Your task to perform on an android device: Open Google Chrome and open the bookmarks view Image 0: 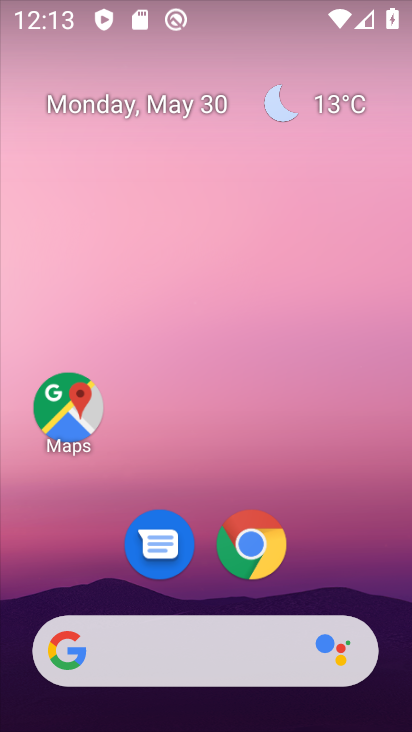
Step 0: click (262, 567)
Your task to perform on an android device: Open Google Chrome and open the bookmarks view Image 1: 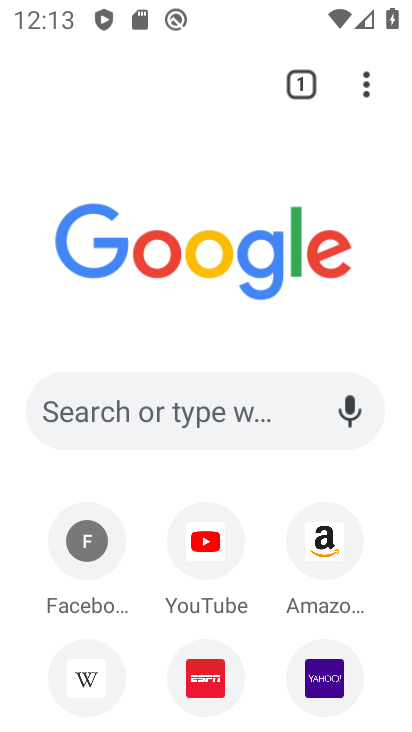
Step 1: click (372, 77)
Your task to perform on an android device: Open Google Chrome and open the bookmarks view Image 2: 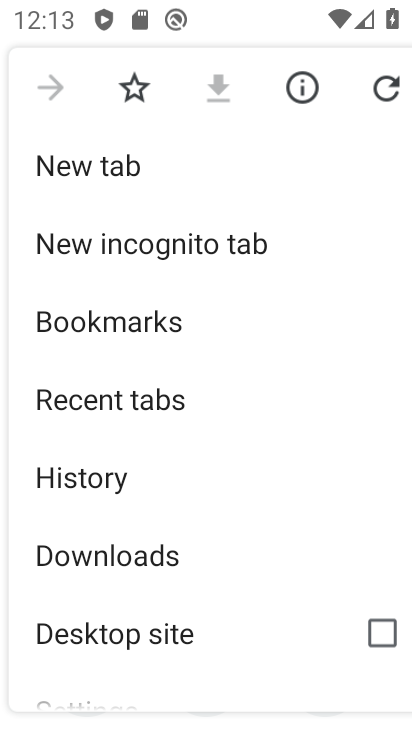
Step 2: click (245, 338)
Your task to perform on an android device: Open Google Chrome and open the bookmarks view Image 3: 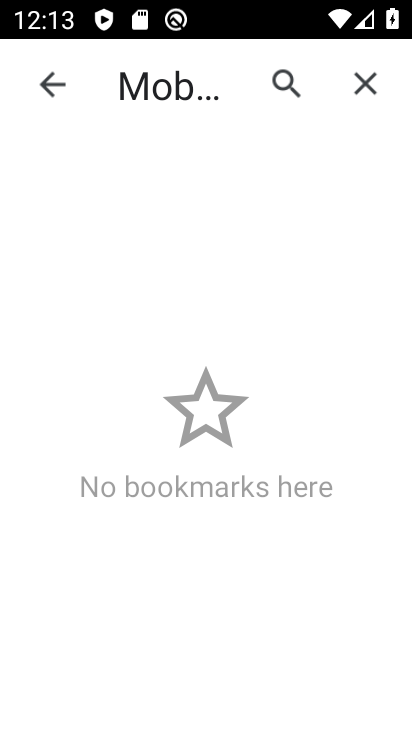
Step 3: task complete